Your task to perform on an android device: Search for a new desk on IKEA. Image 0: 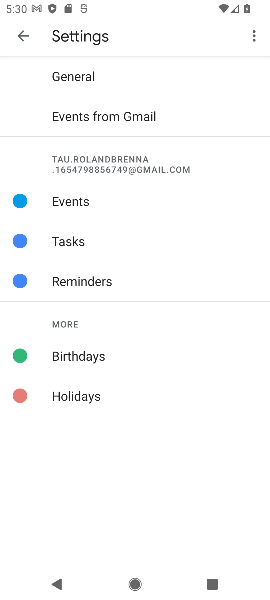
Step 0: press home button
Your task to perform on an android device: Search for a new desk on IKEA. Image 1: 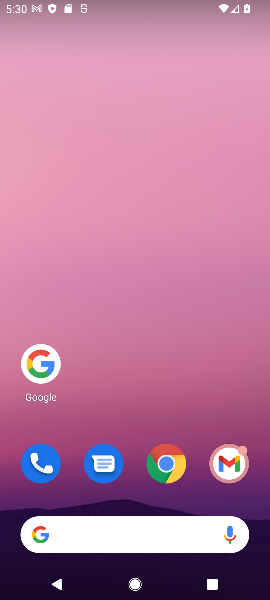
Step 1: click (49, 347)
Your task to perform on an android device: Search for a new desk on IKEA. Image 2: 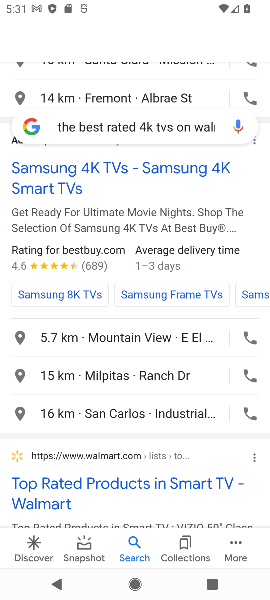
Step 2: drag from (138, 131) to (120, 518)
Your task to perform on an android device: Search for a new desk on IKEA. Image 3: 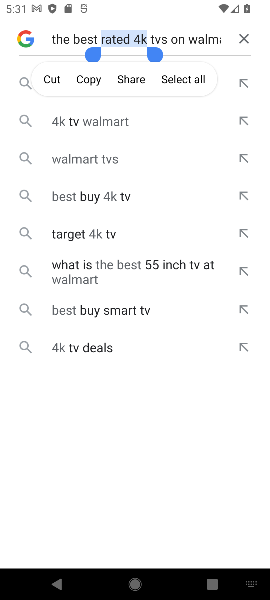
Step 3: click (245, 34)
Your task to perform on an android device: Search for a new desk on IKEA. Image 4: 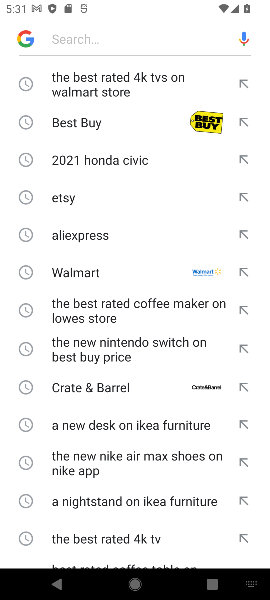
Step 4: click (137, 46)
Your task to perform on an android device: Search for a new desk on IKEA. Image 5: 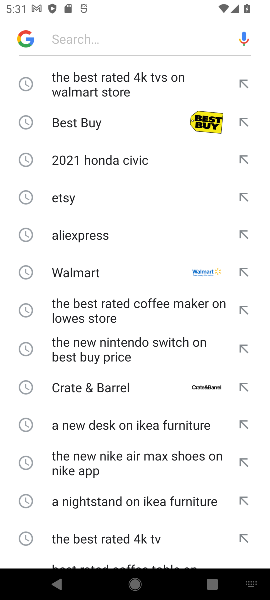
Step 5: type "new desk on IKEA "
Your task to perform on an android device: Search for a new desk on IKEA. Image 6: 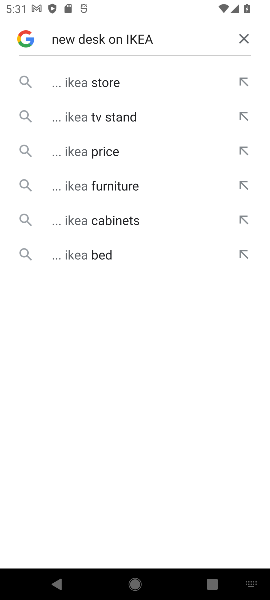
Step 6: click (93, 81)
Your task to perform on an android device: Search for a new desk on IKEA. Image 7: 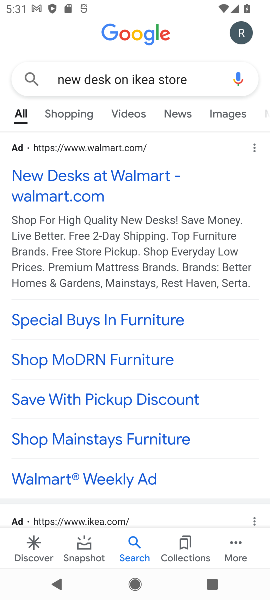
Step 7: click (79, 190)
Your task to perform on an android device: Search for a new desk on IKEA. Image 8: 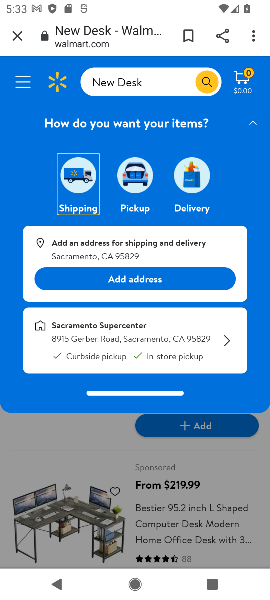
Step 8: task complete